Your task to perform on an android device: toggle show notifications on the lock screen Image 0: 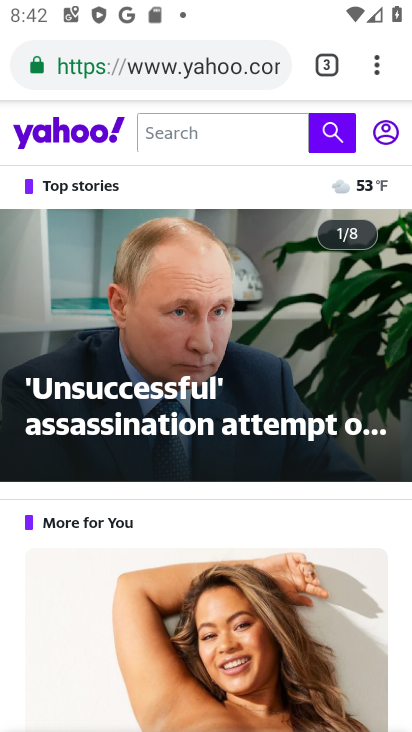
Step 0: press home button
Your task to perform on an android device: toggle show notifications on the lock screen Image 1: 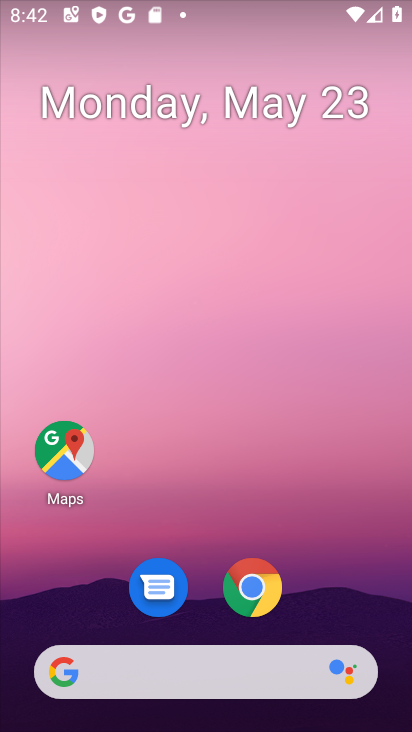
Step 1: drag from (240, 503) to (306, 50)
Your task to perform on an android device: toggle show notifications on the lock screen Image 2: 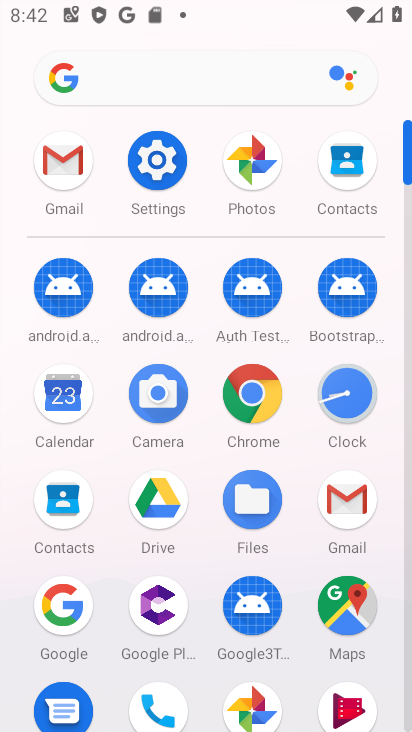
Step 2: click (127, 159)
Your task to perform on an android device: toggle show notifications on the lock screen Image 3: 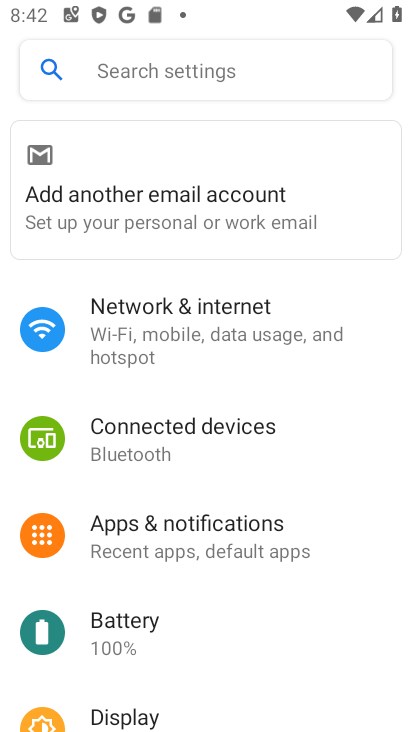
Step 3: click (205, 546)
Your task to perform on an android device: toggle show notifications on the lock screen Image 4: 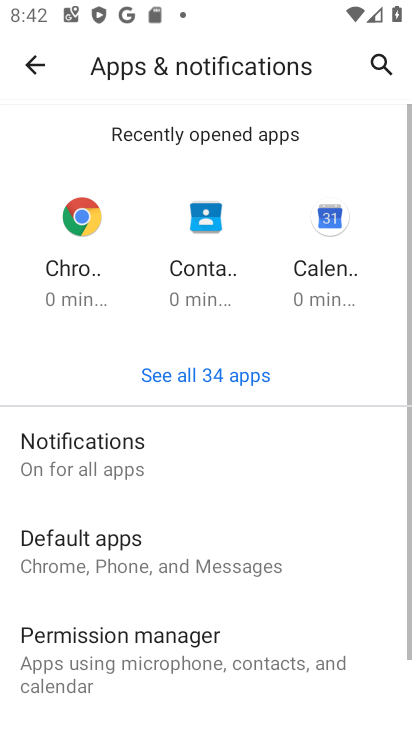
Step 4: click (134, 459)
Your task to perform on an android device: toggle show notifications on the lock screen Image 5: 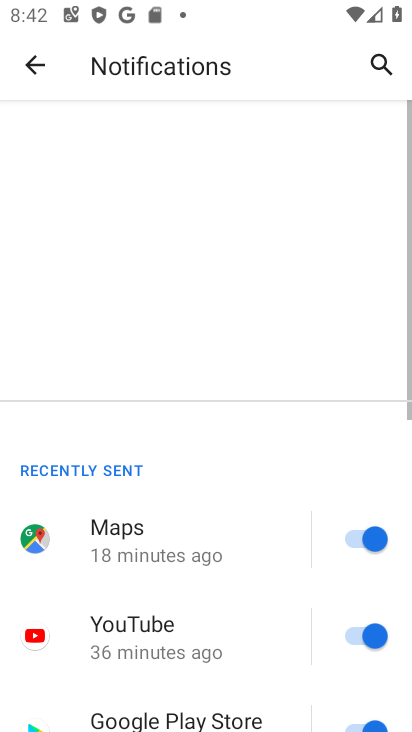
Step 5: drag from (187, 598) to (286, 34)
Your task to perform on an android device: toggle show notifications on the lock screen Image 6: 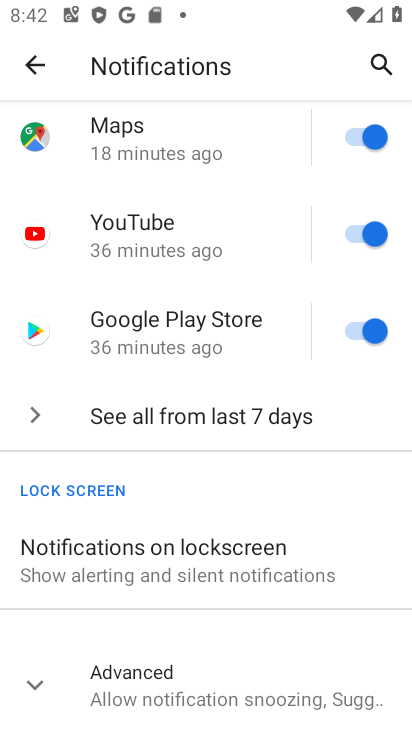
Step 6: click (159, 574)
Your task to perform on an android device: toggle show notifications on the lock screen Image 7: 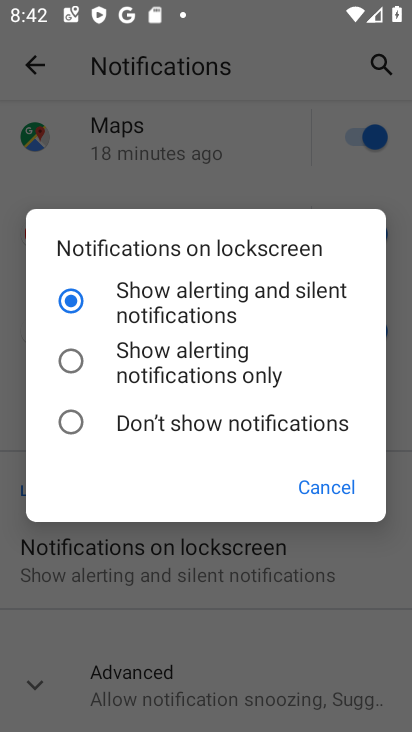
Step 7: click (70, 293)
Your task to perform on an android device: toggle show notifications on the lock screen Image 8: 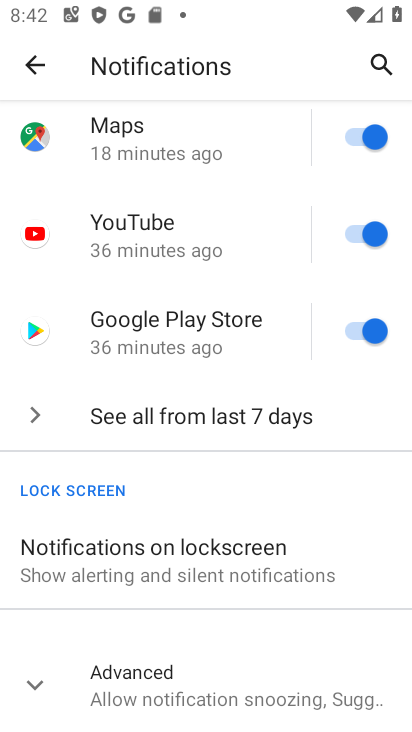
Step 8: task complete